Your task to perform on an android device: create a new album in the google photos Image 0: 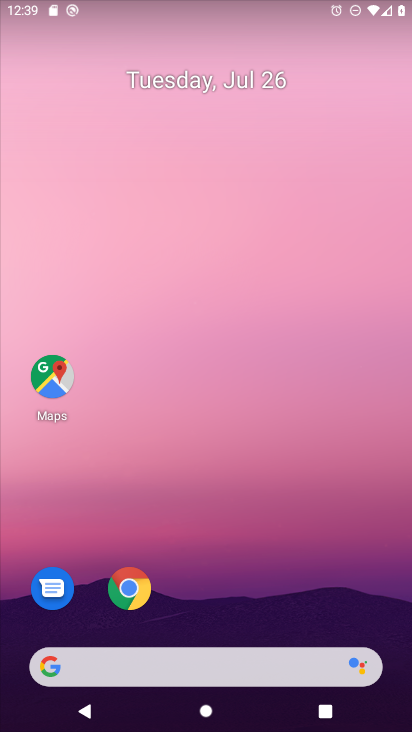
Step 0: drag from (274, 625) to (184, 66)
Your task to perform on an android device: create a new album in the google photos Image 1: 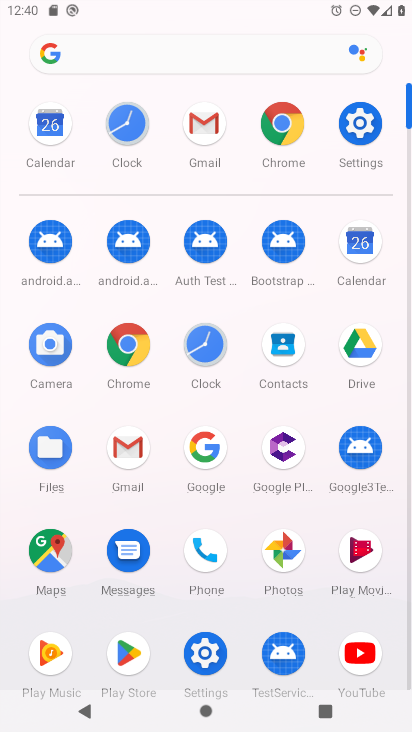
Step 1: click (57, 550)
Your task to perform on an android device: create a new album in the google photos Image 2: 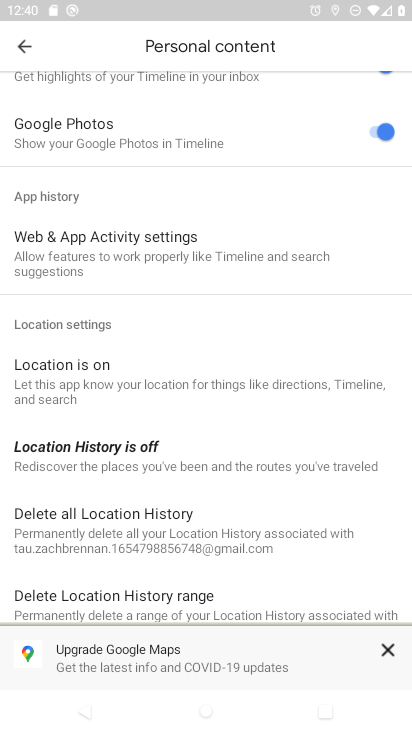
Step 2: click (26, 47)
Your task to perform on an android device: create a new album in the google photos Image 3: 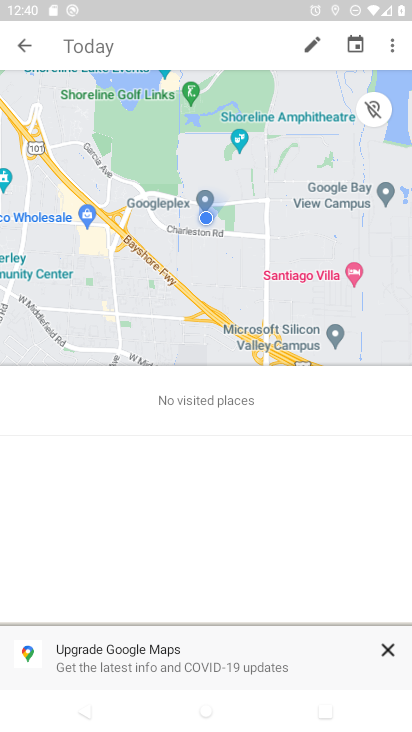
Step 3: press home button
Your task to perform on an android device: create a new album in the google photos Image 4: 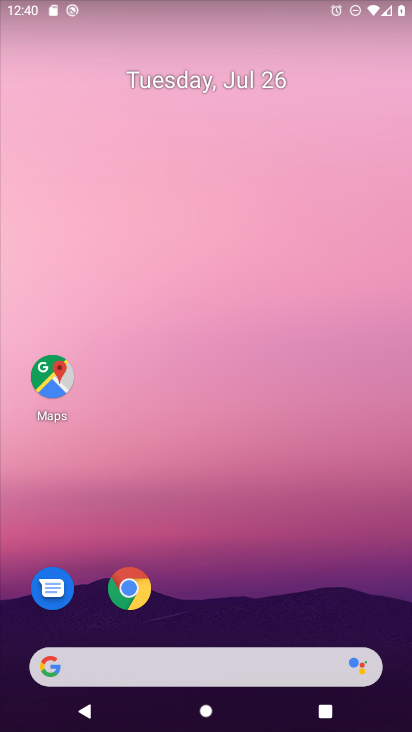
Step 4: drag from (256, 614) to (229, 164)
Your task to perform on an android device: create a new album in the google photos Image 5: 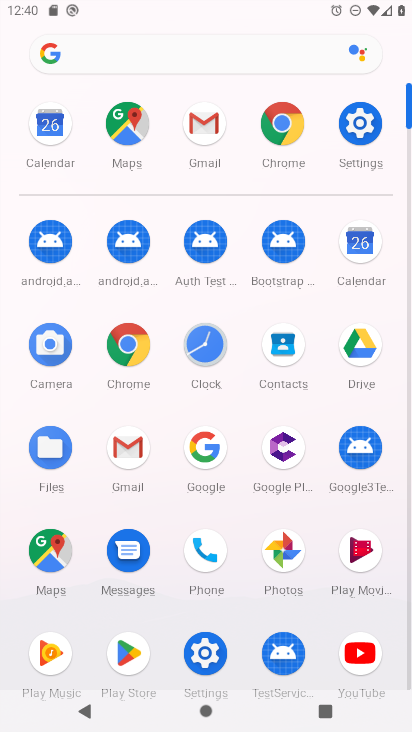
Step 5: click (283, 556)
Your task to perform on an android device: create a new album in the google photos Image 6: 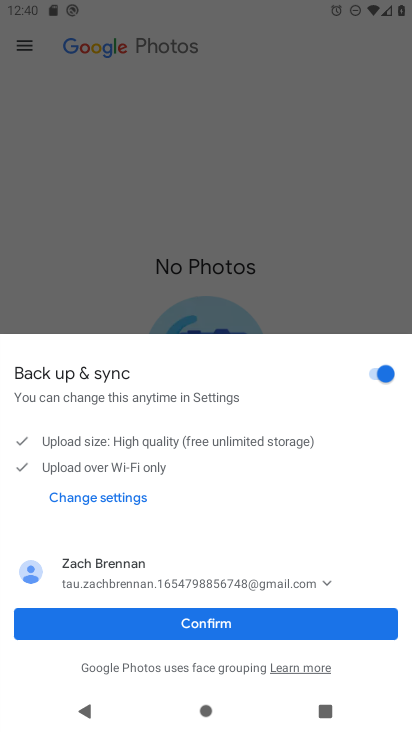
Step 6: click (255, 624)
Your task to perform on an android device: create a new album in the google photos Image 7: 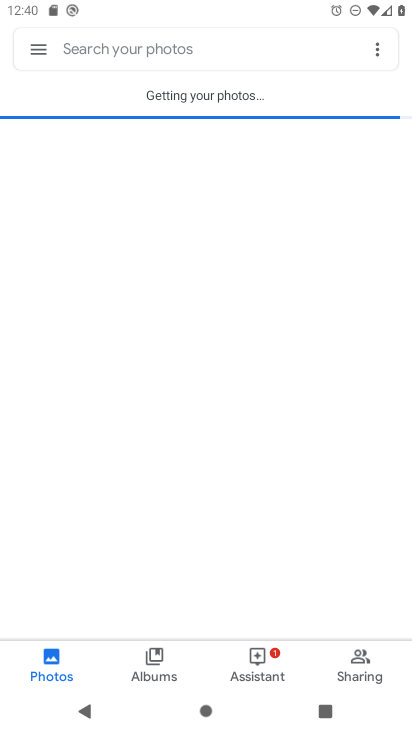
Step 7: click (260, 662)
Your task to perform on an android device: create a new album in the google photos Image 8: 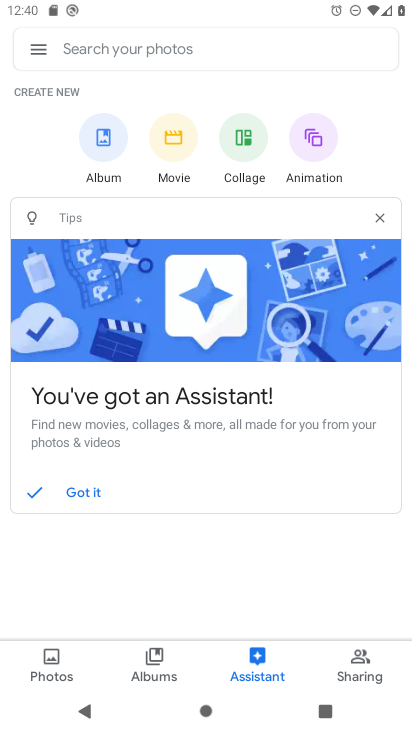
Step 8: click (102, 152)
Your task to perform on an android device: create a new album in the google photos Image 9: 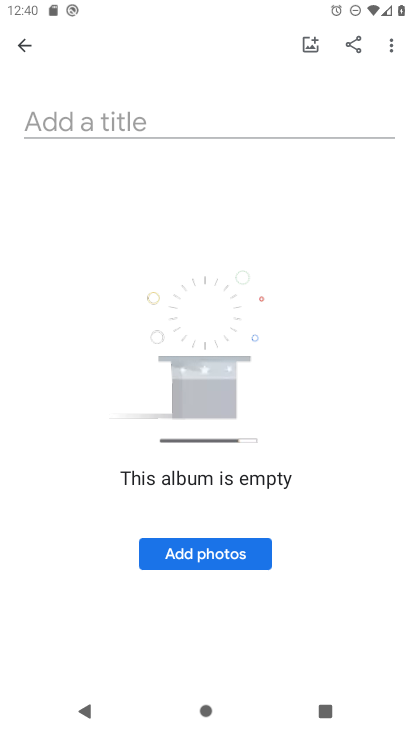
Step 9: click (99, 119)
Your task to perform on an android device: create a new album in the google photos Image 10: 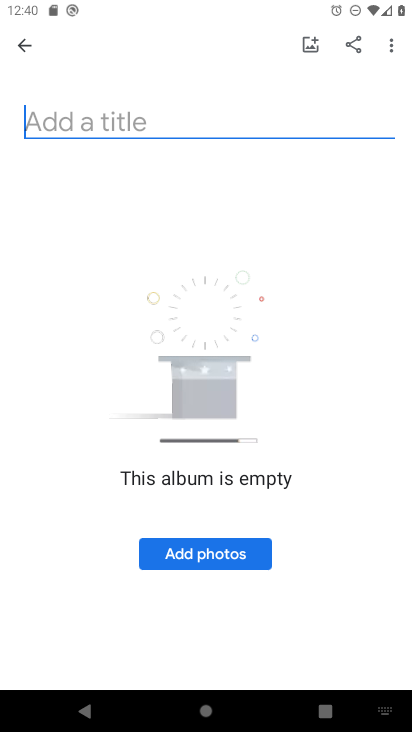
Step 10: type "vghvjgvj"
Your task to perform on an android device: create a new album in the google photos Image 11: 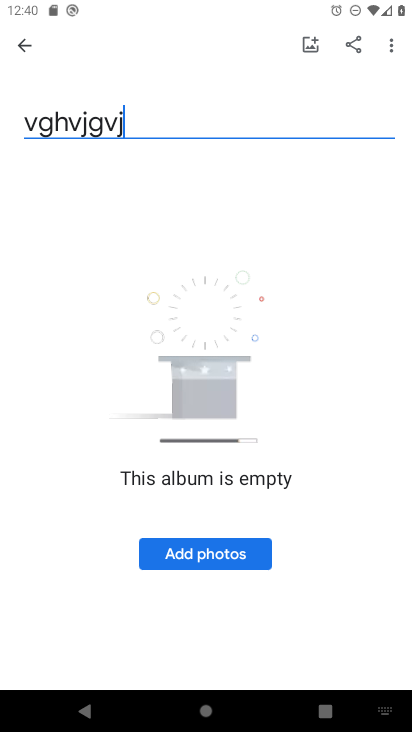
Step 11: click (248, 556)
Your task to perform on an android device: create a new album in the google photos Image 12: 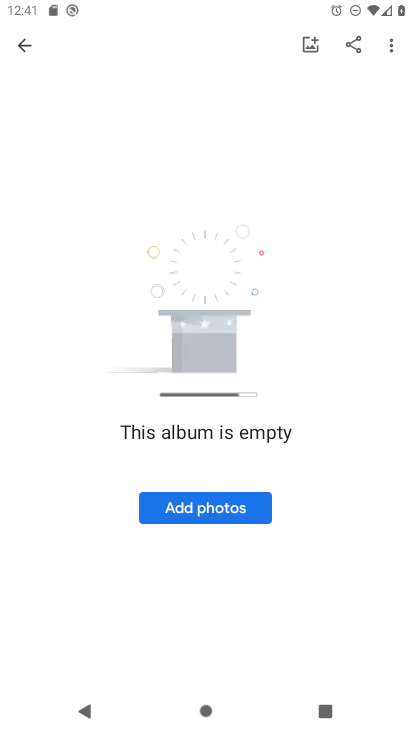
Step 12: click (218, 510)
Your task to perform on an android device: create a new album in the google photos Image 13: 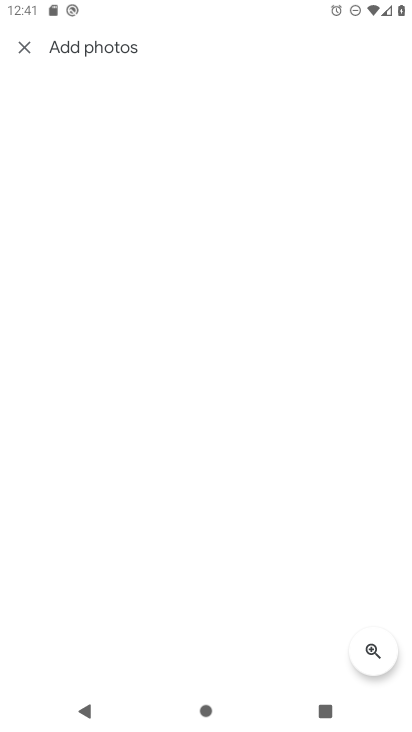
Step 13: task complete